Your task to perform on an android device: open app "Expedia: Hotels, Flights & Car" Image 0: 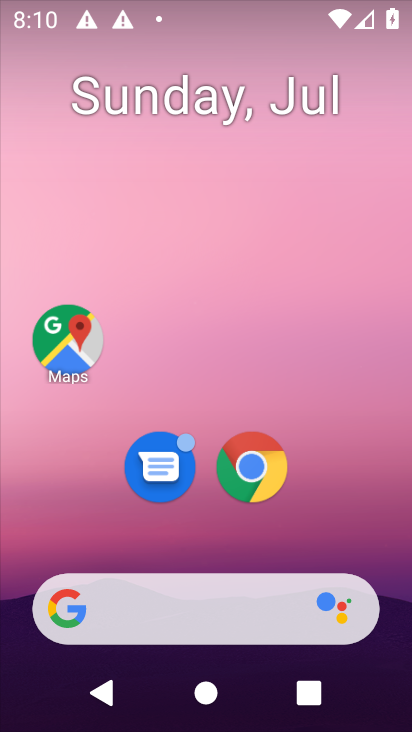
Step 0: click (407, 464)
Your task to perform on an android device: open app "Expedia: Hotels, Flights & Car" Image 1: 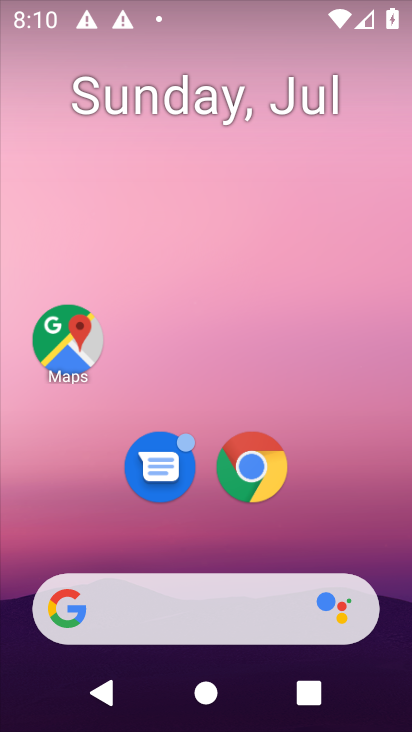
Step 1: drag from (188, 561) to (250, 217)
Your task to perform on an android device: open app "Expedia: Hotels, Flights & Car" Image 2: 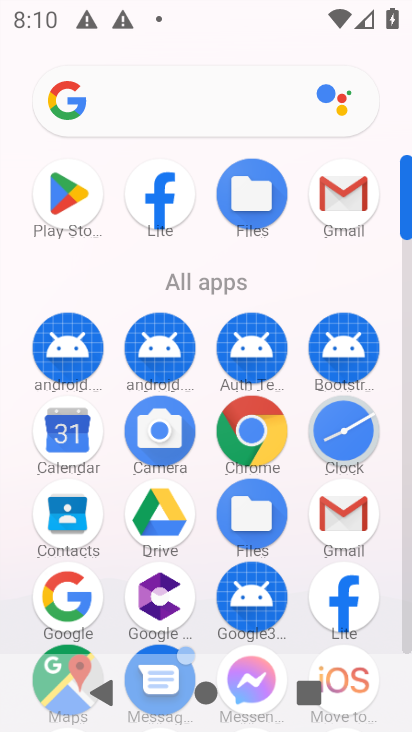
Step 2: drag from (201, 584) to (199, 412)
Your task to perform on an android device: open app "Expedia: Hotels, Flights & Car" Image 3: 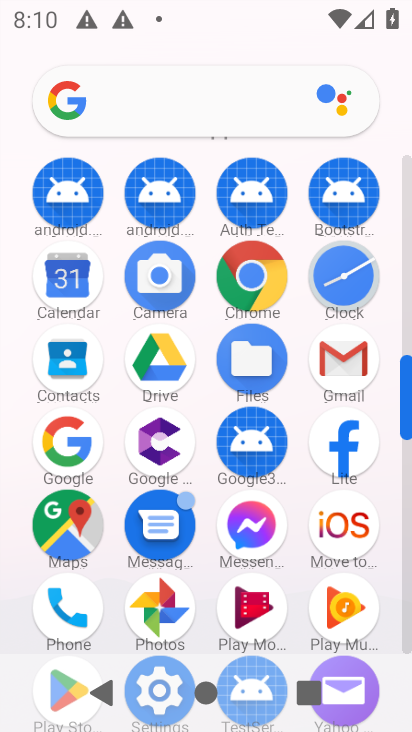
Step 3: drag from (207, 299) to (236, 197)
Your task to perform on an android device: open app "Expedia: Hotels, Flights & Car" Image 4: 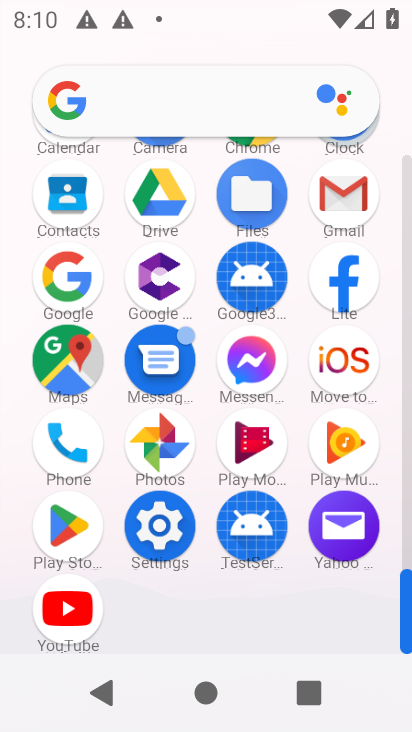
Step 4: click (59, 542)
Your task to perform on an android device: open app "Expedia: Hotels, Flights & Car" Image 5: 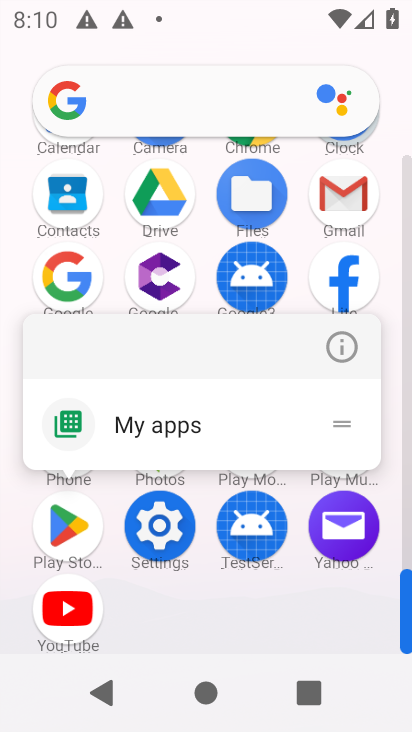
Step 5: click (343, 341)
Your task to perform on an android device: open app "Expedia: Hotels, Flights & Car" Image 6: 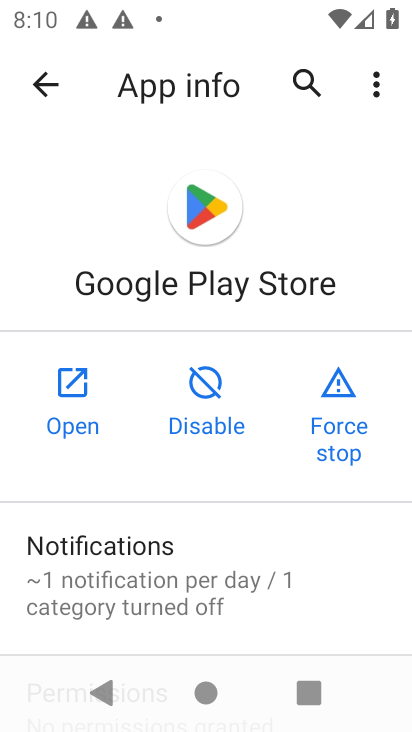
Step 6: click (74, 388)
Your task to perform on an android device: open app "Expedia: Hotels, Flights & Car" Image 7: 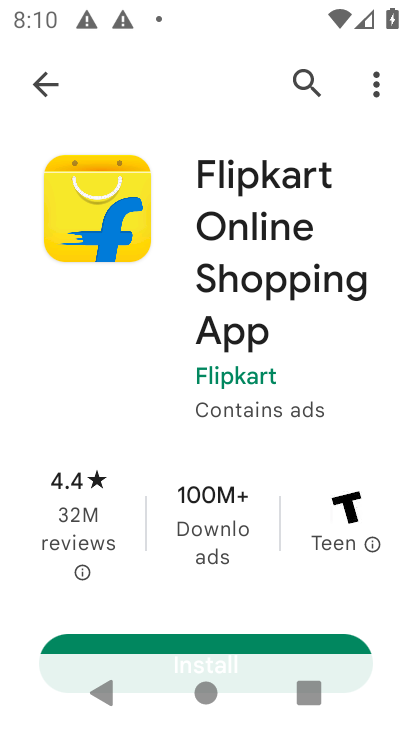
Step 7: drag from (194, 599) to (238, 295)
Your task to perform on an android device: open app "Expedia: Hotels, Flights & Car" Image 8: 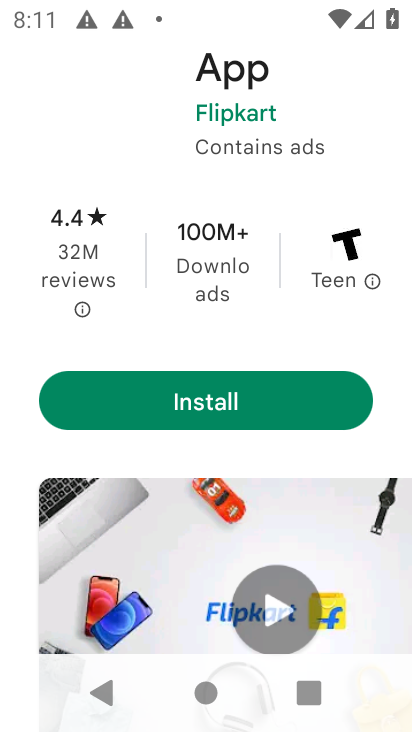
Step 8: drag from (254, 152) to (296, 727)
Your task to perform on an android device: open app "Expedia: Hotels, Flights & Car" Image 9: 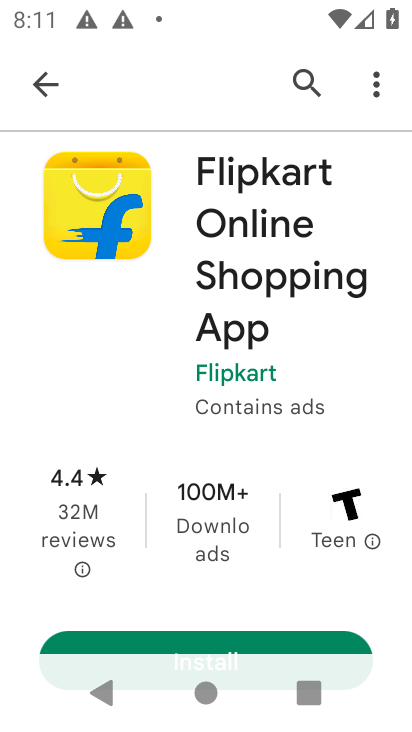
Step 9: click (295, 88)
Your task to perform on an android device: open app "Expedia: Hotels, Flights & Car" Image 10: 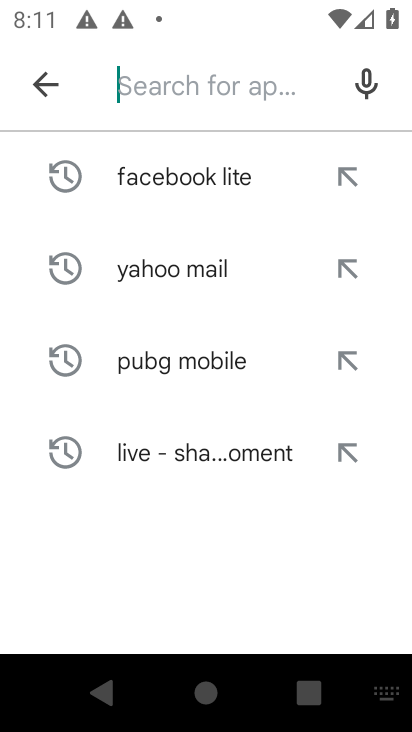
Step 10: click (171, 60)
Your task to perform on an android device: open app "Expedia: Hotels, Flights & Car" Image 11: 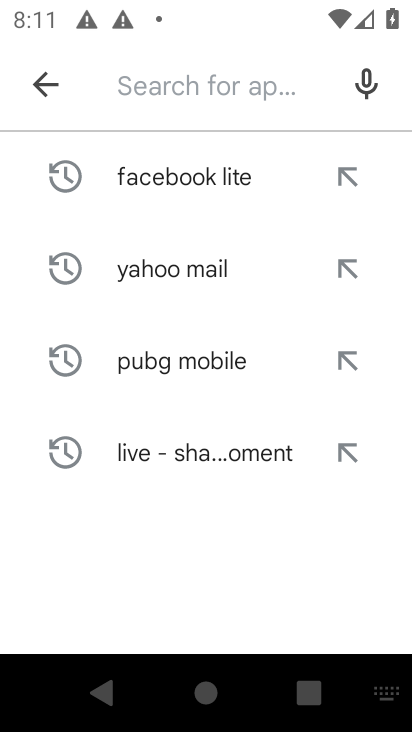
Step 11: click (159, 77)
Your task to perform on an android device: open app "Expedia: Hotels, Flights & Car" Image 12: 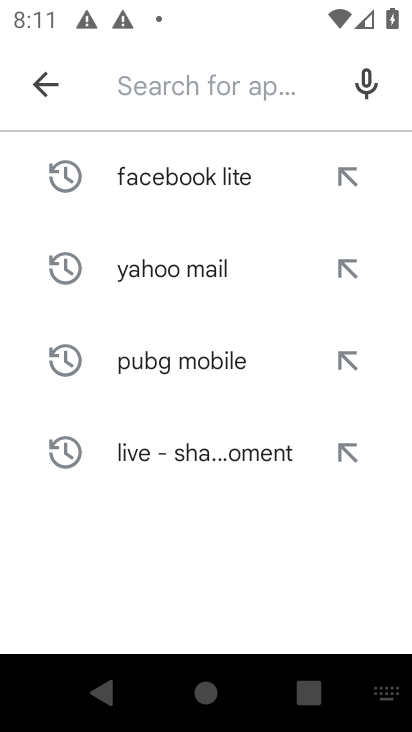
Step 12: type "Expedia: Hotels, Flights & Car"
Your task to perform on an android device: open app "Expedia: Hotels, Flights & Car" Image 13: 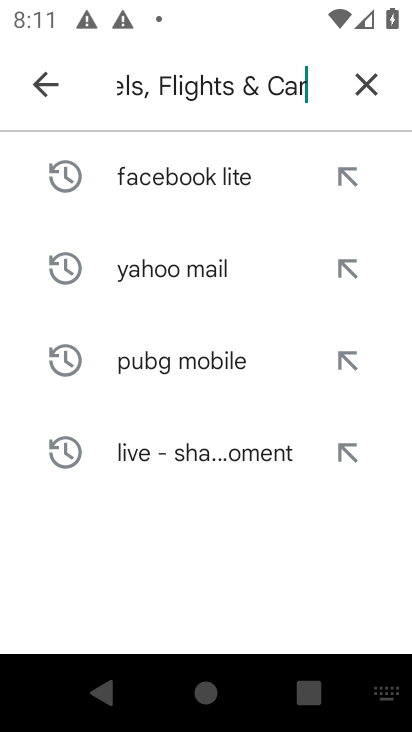
Step 13: type ""
Your task to perform on an android device: open app "Expedia: Hotels, Flights & Car" Image 14: 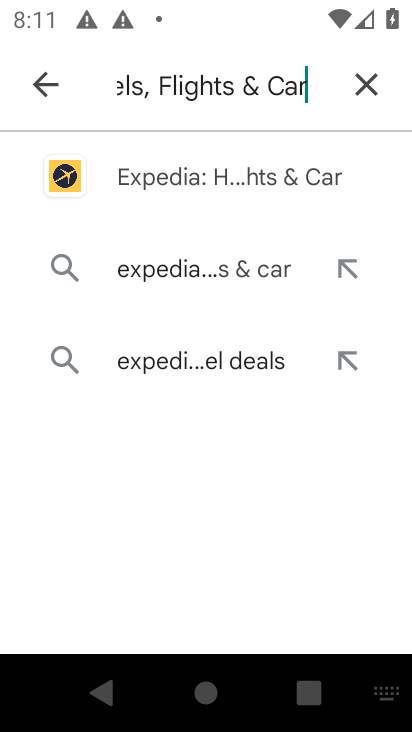
Step 14: click (141, 185)
Your task to perform on an android device: open app "Expedia: Hotels, Flights & Car" Image 15: 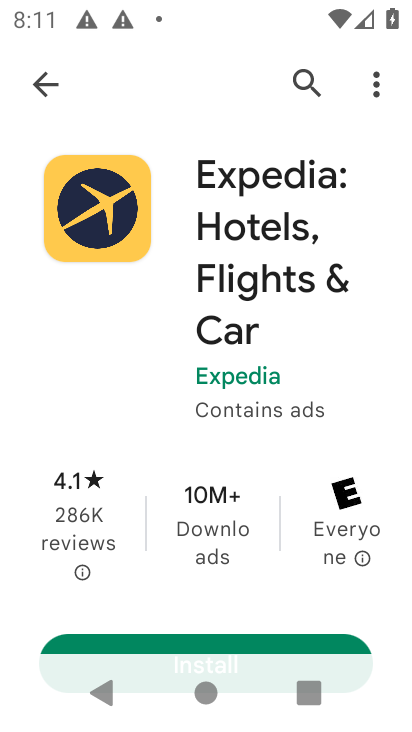
Step 15: drag from (267, 506) to (260, 248)
Your task to perform on an android device: open app "Expedia: Hotels, Flights & Car" Image 16: 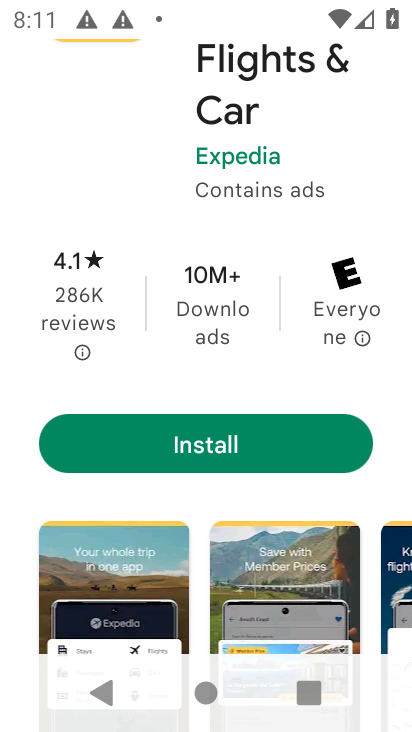
Step 16: drag from (274, 141) to (251, 437)
Your task to perform on an android device: open app "Expedia: Hotels, Flights & Car" Image 17: 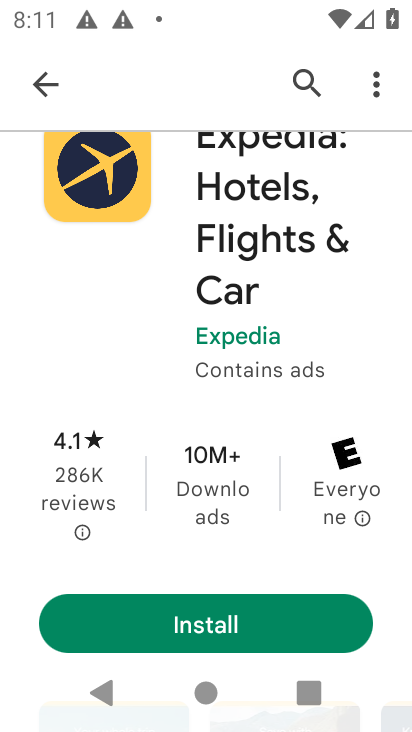
Step 17: drag from (275, 198) to (307, 633)
Your task to perform on an android device: open app "Expedia: Hotels, Flights & Car" Image 18: 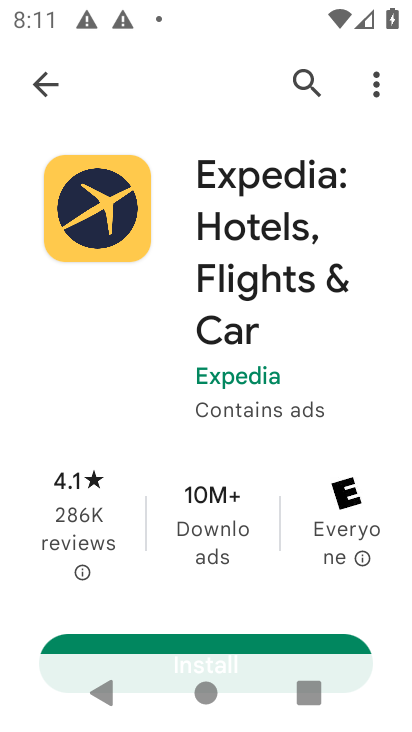
Step 18: drag from (254, 587) to (278, 388)
Your task to perform on an android device: open app "Expedia: Hotels, Flights & Car" Image 19: 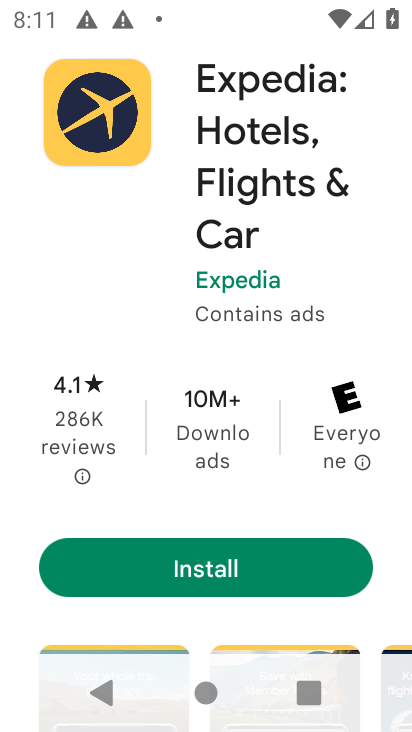
Step 19: click (200, 573)
Your task to perform on an android device: open app "Expedia: Hotels, Flights & Car" Image 20: 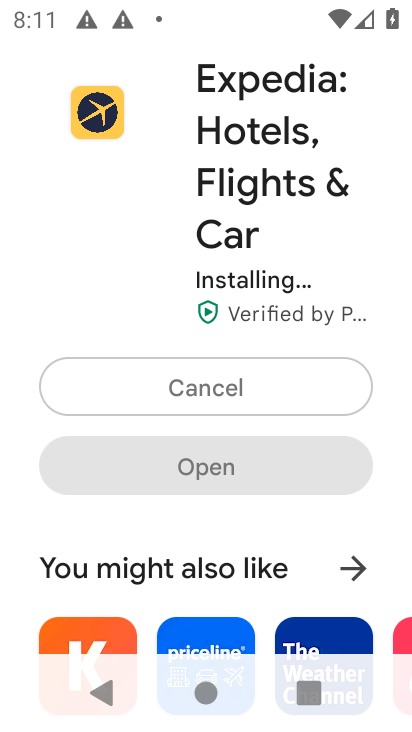
Step 20: drag from (272, 267) to (265, 675)
Your task to perform on an android device: open app "Expedia: Hotels, Flights & Car" Image 21: 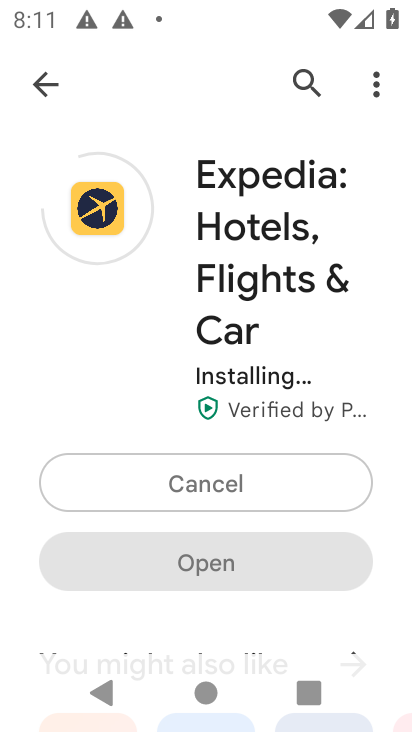
Step 21: drag from (266, 239) to (247, 645)
Your task to perform on an android device: open app "Expedia: Hotels, Flights & Car" Image 22: 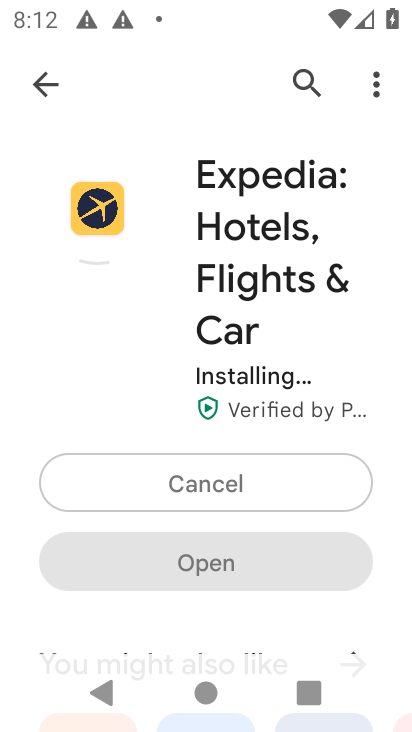
Step 22: drag from (274, 261) to (204, 587)
Your task to perform on an android device: open app "Expedia: Hotels, Flights & Car" Image 23: 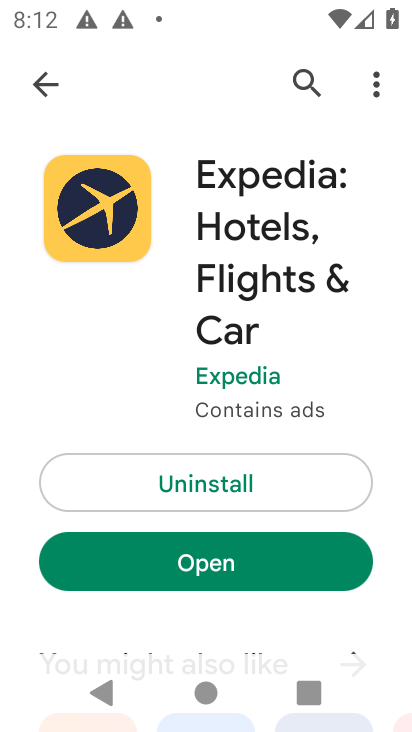
Step 23: drag from (276, 239) to (245, 603)
Your task to perform on an android device: open app "Expedia: Hotels, Flights & Car" Image 24: 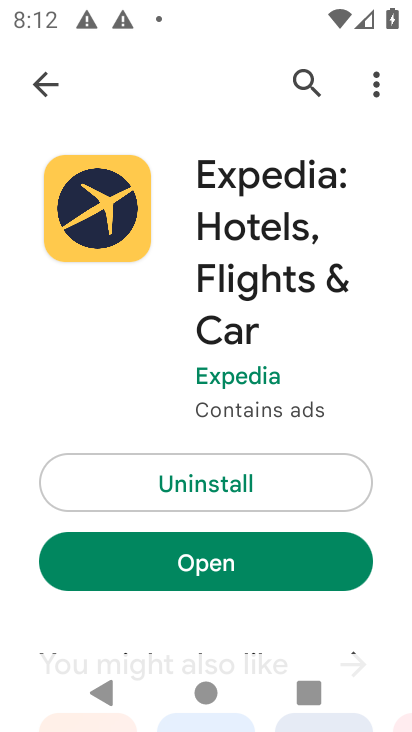
Step 24: drag from (246, 263) to (246, 628)
Your task to perform on an android device: open app "Expedia: Hotels, Flights & Car" Image 25: 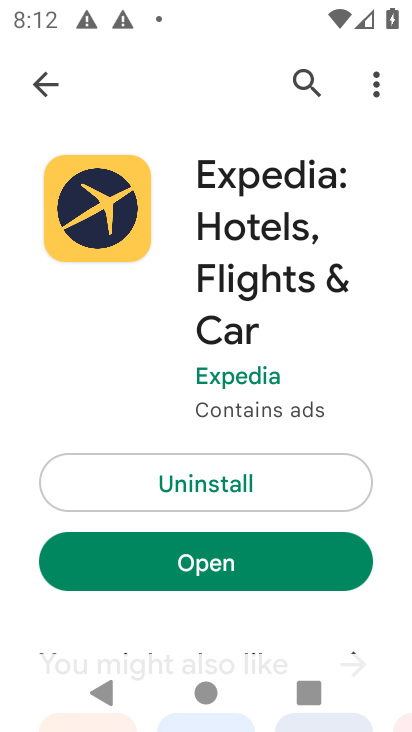
Step 25: drag from (223, 224) to (205, 527)
Your task to perform on an android device: open app "Expedia: Hotels, Flights & Car" Image 26: 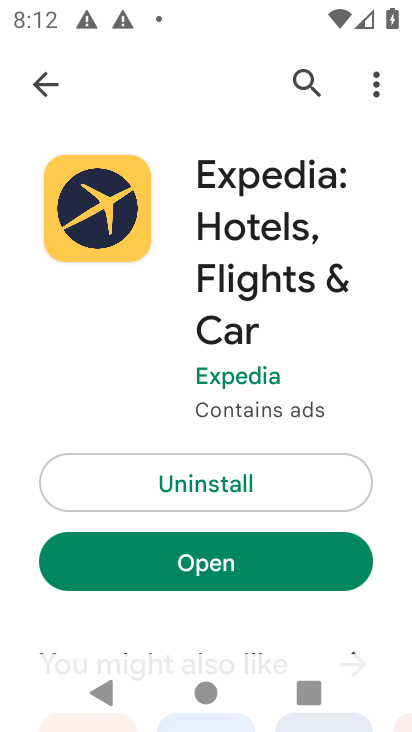
Step 26: drag from (254, 258) to (237, 549)
Your task to perform on an android device: open app "Expedia: Hotels, Flights & Car" Image 27: 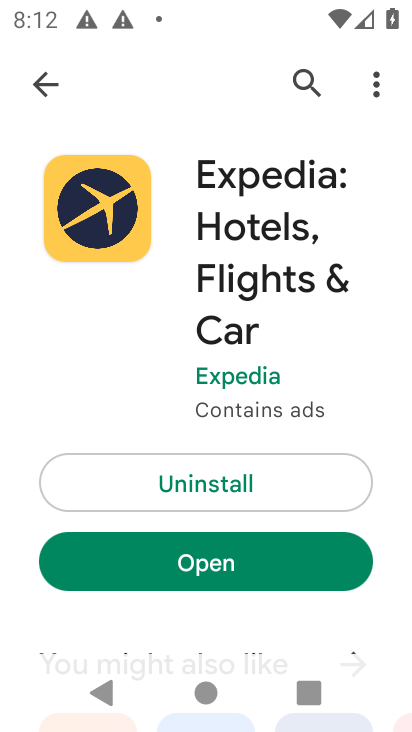
Step 27: drag from (223, 225) to (292, 689)
Your task to perform on an android device: open app "Expedia: Hotels, Flights & Car" Image 28: 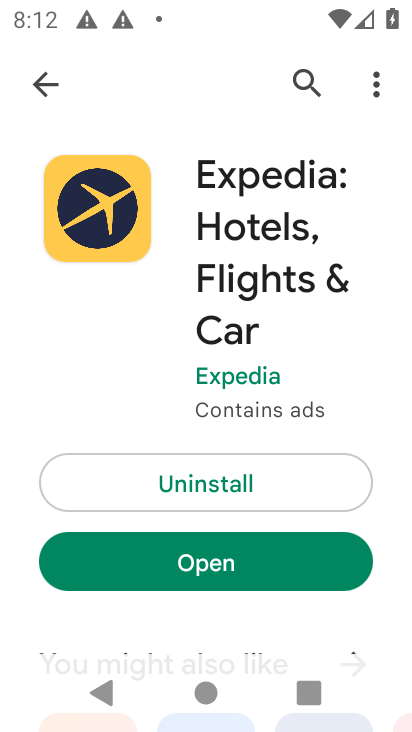
Step 28: click (190, 562)
Your task to perform on an android device: open app "Expedia: Hotels, Flights & Car" Image 29: 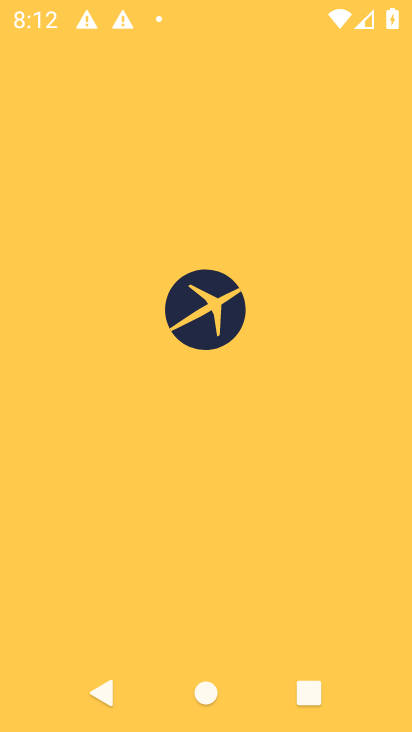
Step 29: drag from (235, 612) to (242, 284)
Your task to perform on an android device: open app "Expedia: Hotels, Flights & Car" Image 30: 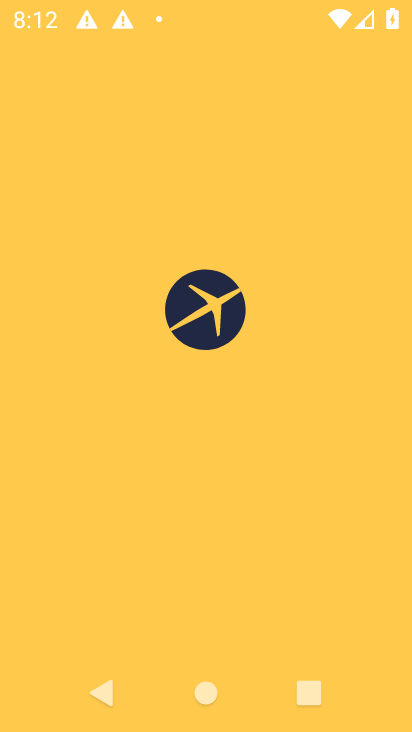
Step 30: drag from (248, 168) to (191, 540)
Your task to perform on an android device: open app "Expedia: Hotels, Flights & Car" Image 31: 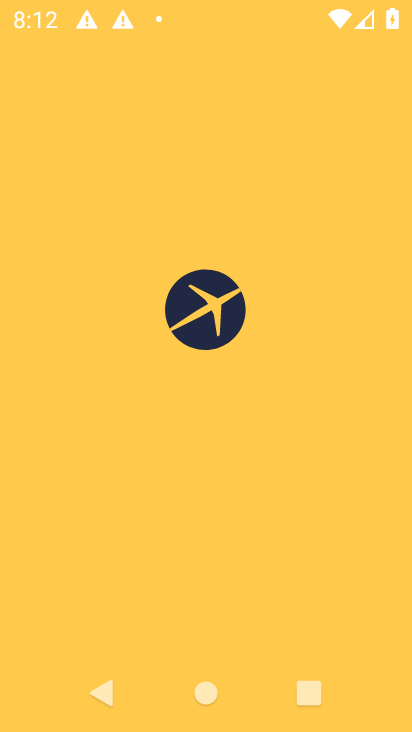
Step 31: drag from (207, 557) to (276, 169)
Your task to perform on an android device: open app "Expedia: Hotels, Flights & Car" Image 32: 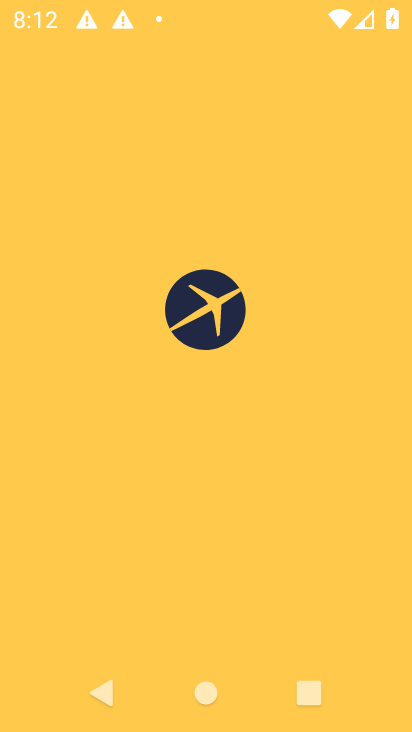
Step 32: drag from (280, 148) to (202, 537)
Your task to perform on an android device: open app "Expedia: Hotels, Flights & Car" Image 33: 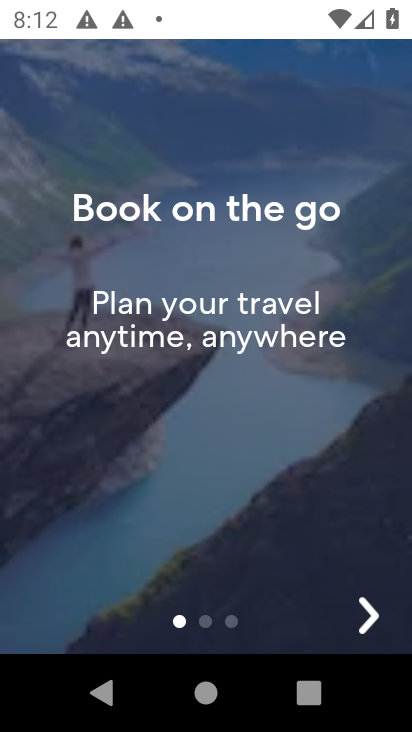
Step 33: drag from (204, 248) to (177, 706)
Your task to perform on an android device: open app "Expedia: Hotels, Flights & Car" Image 34: 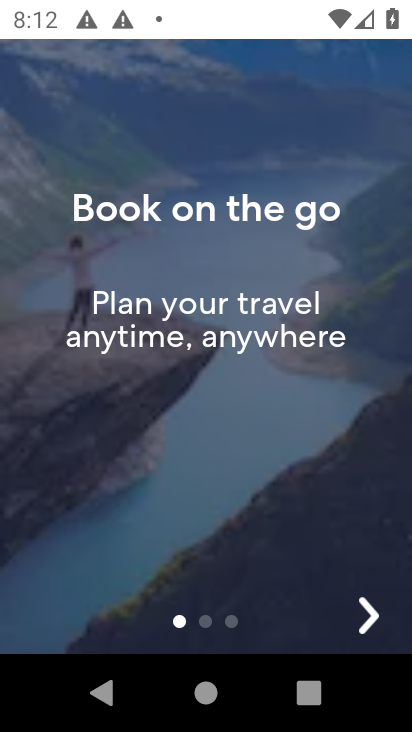
Step 34: click (365, 613)
Your task to perform on an android device: open app "Expedia: Hotels, Flights & Car" Image 35: 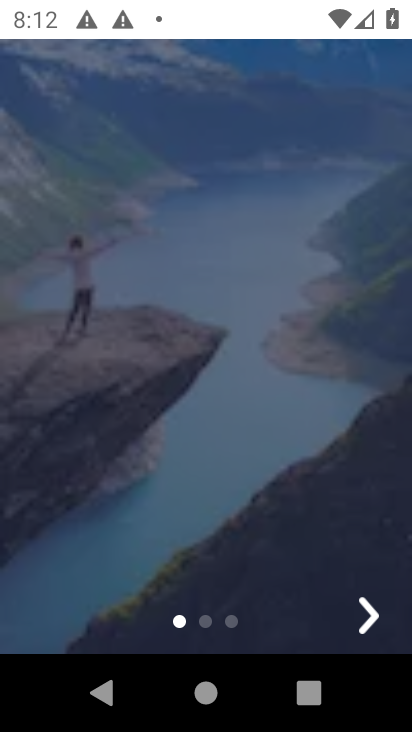
Step 35: click (366, 612)
Your task to perform on an android device: open app "Expedia: Hotels, Flights & Car" Image 36: 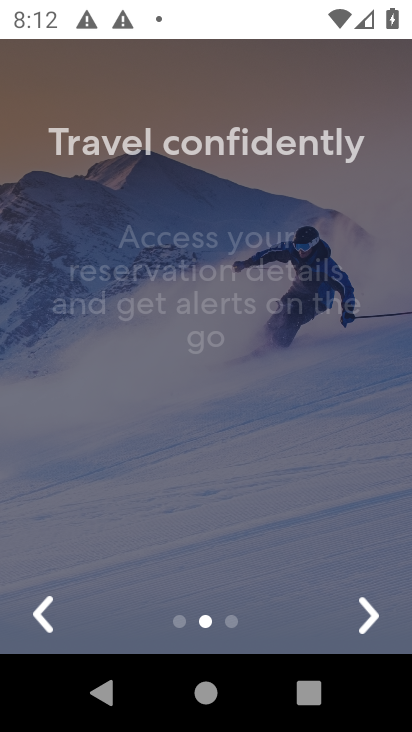
Step 36: click (366, 612)
Your task to perform on an android device: open app "Expedia: Hotels, Flights & Car" Image 37: 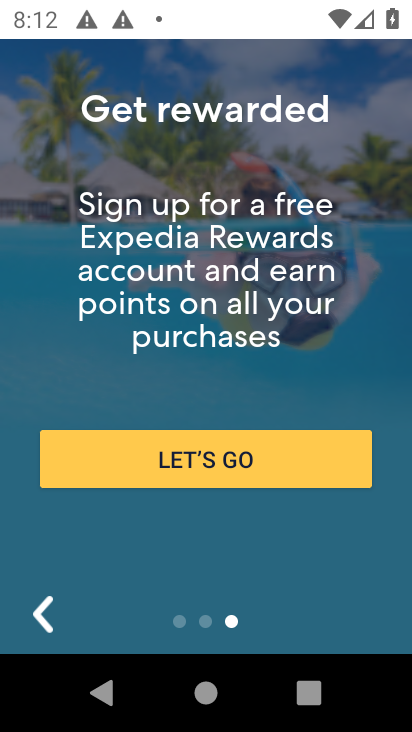
Step 37: click (228, 458)
Your task to perform on an android device: open app "Expedia: Hotels, Flights & Car" Image 38: 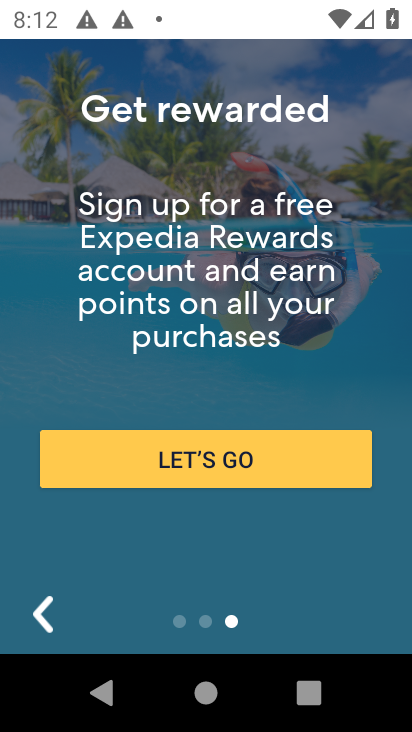
Step 38: click (188, 465)
Your task to perform on an android device: open app "Expedia: Hotels, Flights & Car" Image 39: 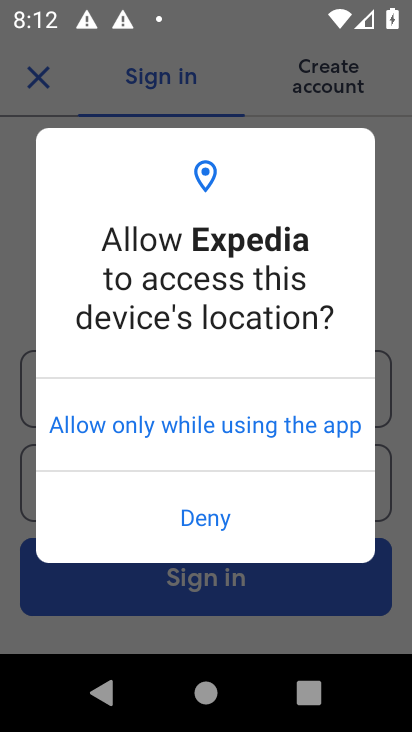
Step 39: click (127, 446)
Your task to perform on an android device: open app "Expedia: Hotels, Flights & Car" Image 40: 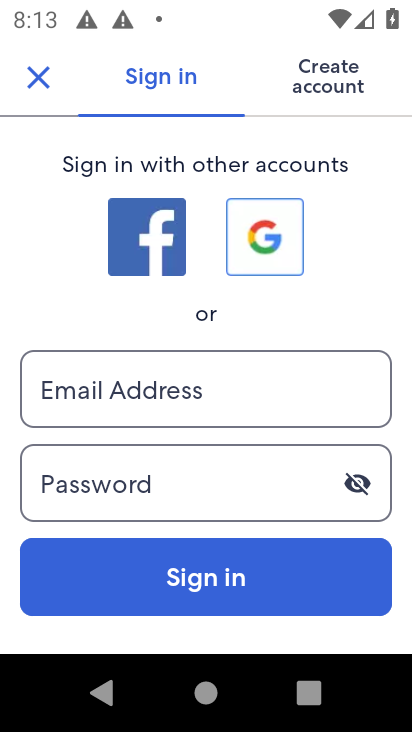
Step 40: task complete